Your task to perform on an android device: Show me productivity apps on the Play Store Image 0: 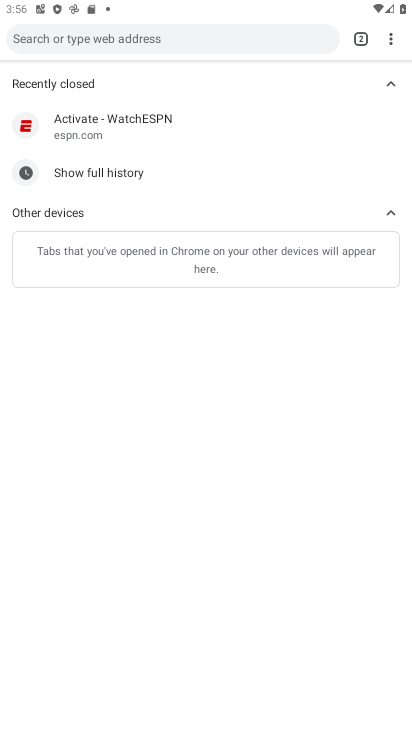
Step 0: task complete